Your task to perform on an android device: change the clock style Image 0: 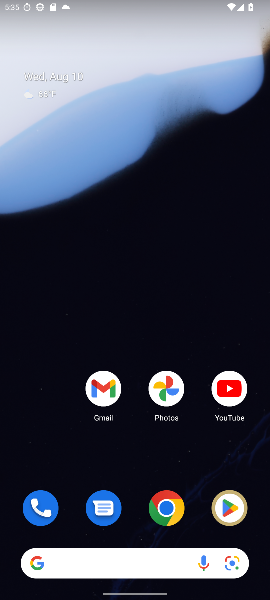
Step 0: press home button
Your task to perform on an android device: change the clock style Image 1: 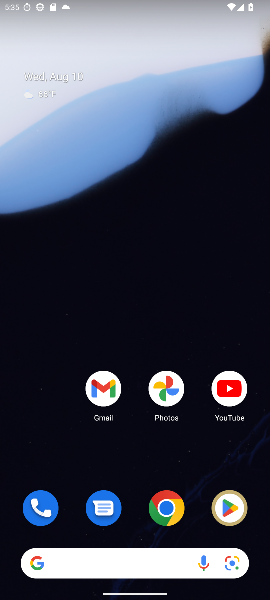
Step 1: drag from (48, 455) to (72, 120)
Your task to perform on an android device: change the clock style Image 2: 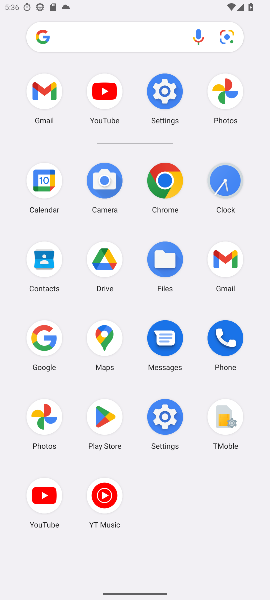
Step 2: click (226, 176)
Your task to perform on an android device: change the clock style Image 3: 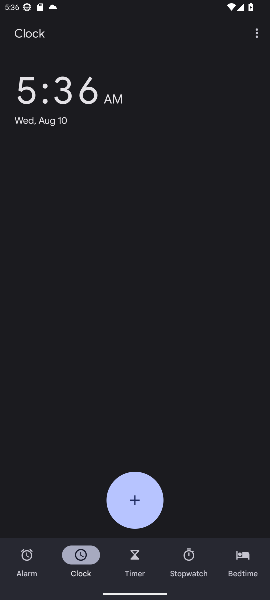
Step 3: click (255, 31)
Your task to perform on an android device: change the clock style Image 4: 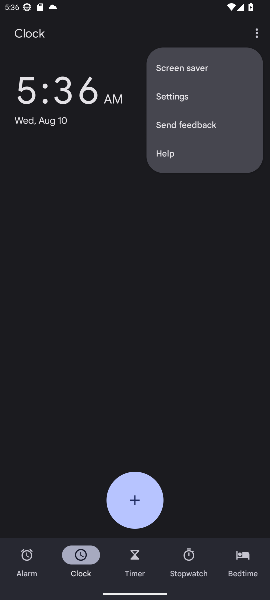
Step 4: click (183, 103)
Your task to perform on an android device: change the clock style Image 5: 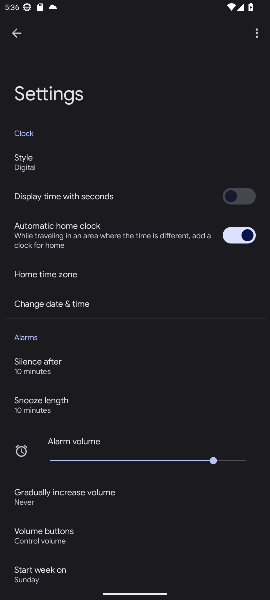
Step 5: click (28, 157)
Your task to perform on an android device: change the clock style Image 6: 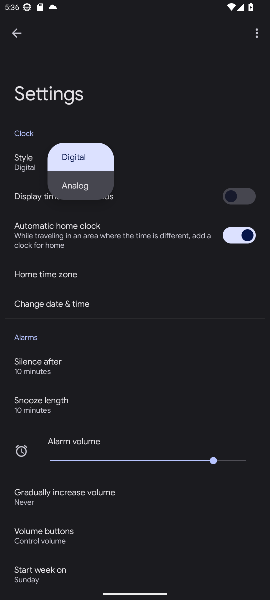
Step 6: click (83, 180)
Your task to perform on an android device: change the clock style Image 7: 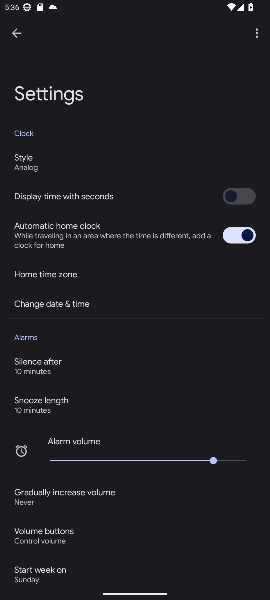
Step 7: task complete